Your task to perform on an android device: What's on my calendar today? Image 0: 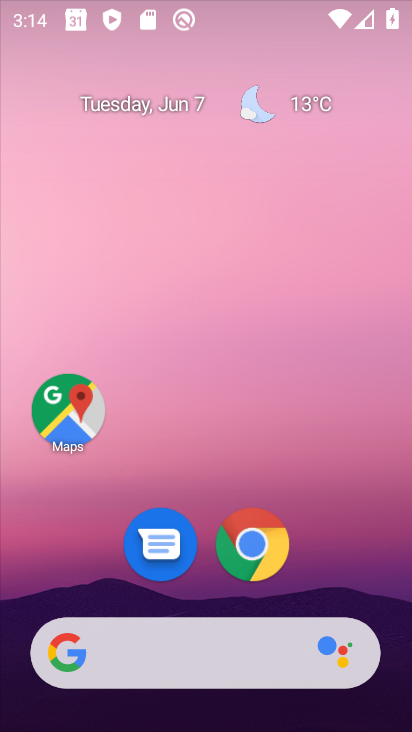
Step 0: press home button
Your task to perform on an android device: What's on my calendar today? Image 1: 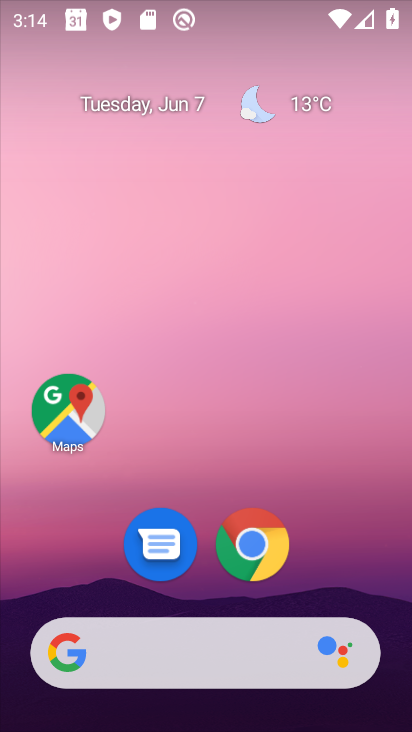
Step 1: drag from (213, 596) to (223, 140)
Your task to perform on an android device: What's on my calendar today? Image 2: 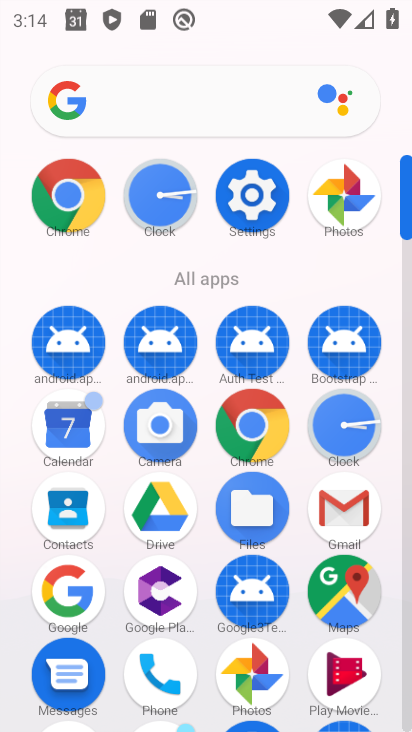
Step 2: click (66, 422)
Your task to perform on an android device: What's on my calendar today? Image 3: 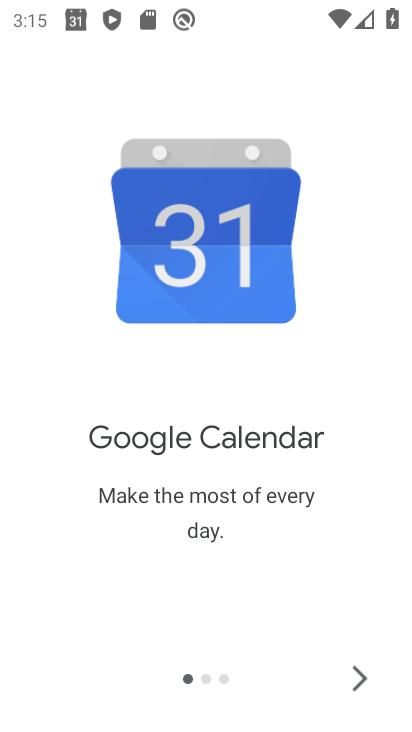
Step 3: click (345, 670)
Your task to perform on an android device: What's on my calendar today? Image 4: 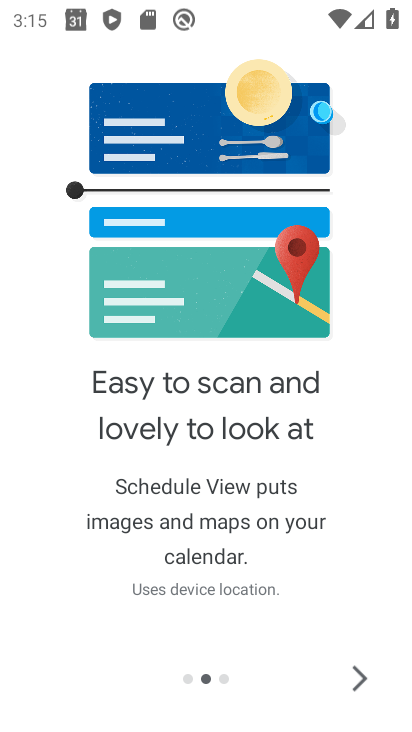
Step 4: click (345, 670)
Your task to perform on an android device: What's on my calendar today? Image 5: 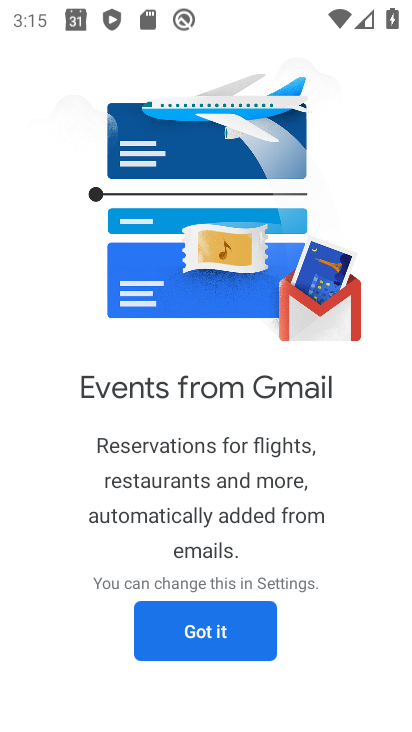
Step 5: click (345, 670)
Your task to perform on an android device: What's on my calendar today? Image 6: 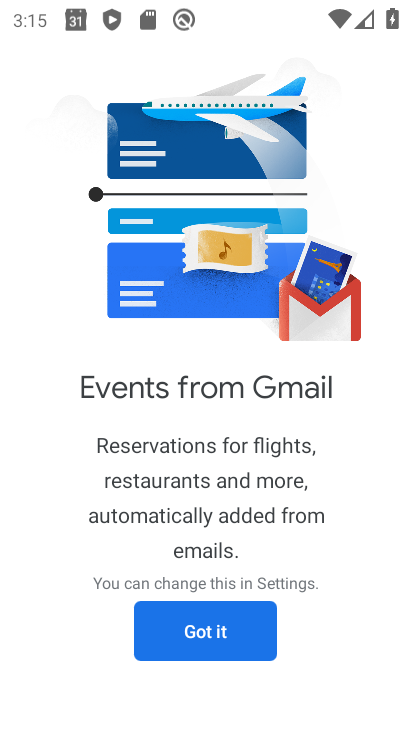
Step 6: click (213, 629)
Your task to perform on an android device: What's on my calendar today? Image 7: 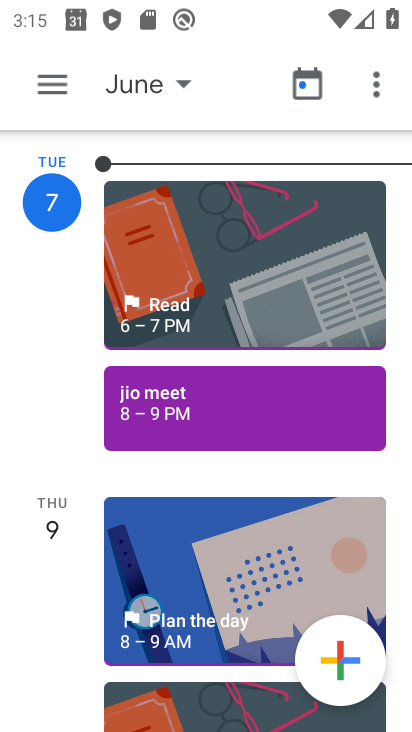
Step 7: drag from (58, 639) to (49, 207)
Your task to perform on an android device: What's on my calendar today? Image 8: 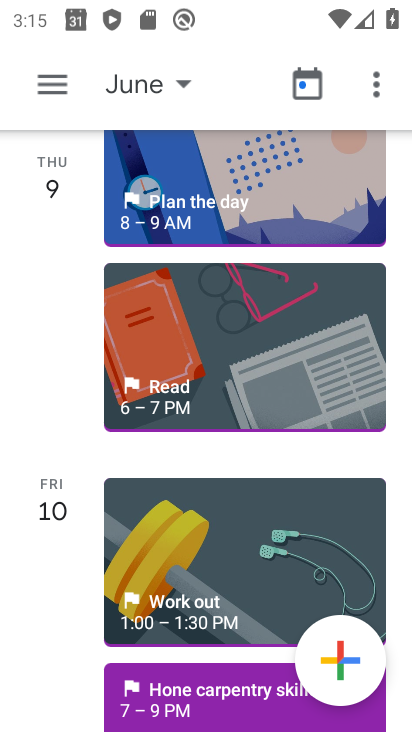
Step 8: drag from (78, 636) to (83, 162)
Your task to perform on an android device: What's on my calendar today? Image 9: 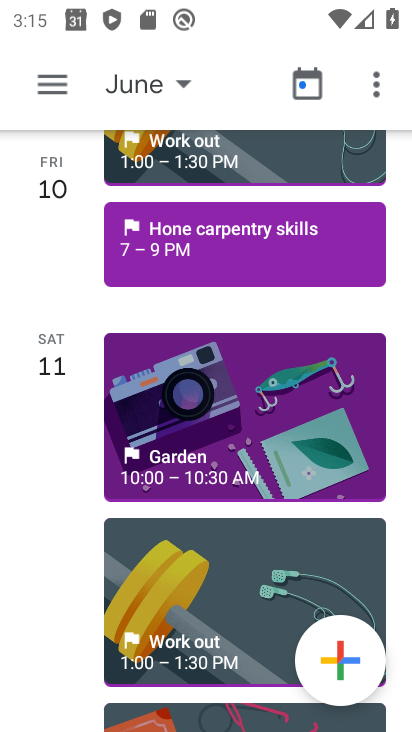
Step 9: drag from (78, 149) to (72, 685)
Your task to perform on an android device: What's on my calendar today? Image 10: 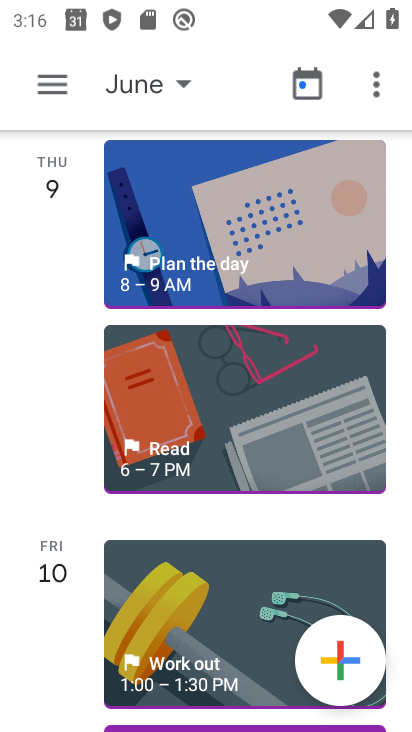
Step 10: drag from (78, 184) to (64, 566)
Your task to perform on an android device: What's on my calendar today? Image 11: 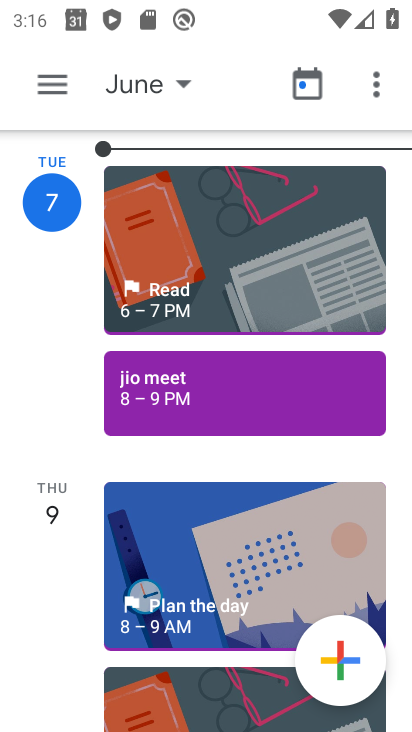
Step 11: click (76, 221)
Your task to perform on an android device: What's on my calendar today? Image 12: 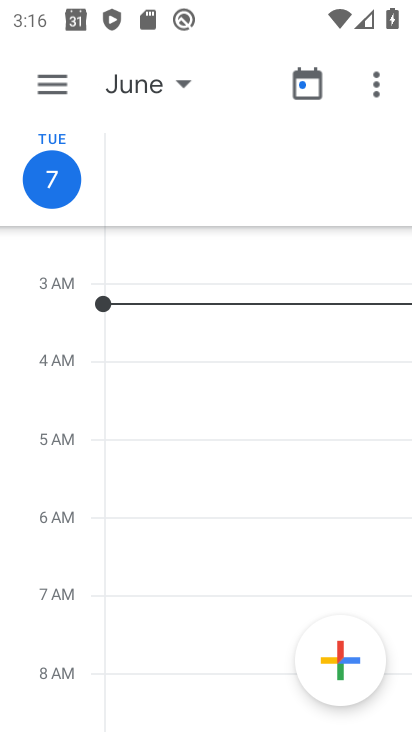
Step 12: task complete